Your task to perform on an android device: turn off sleep mode Image 0: 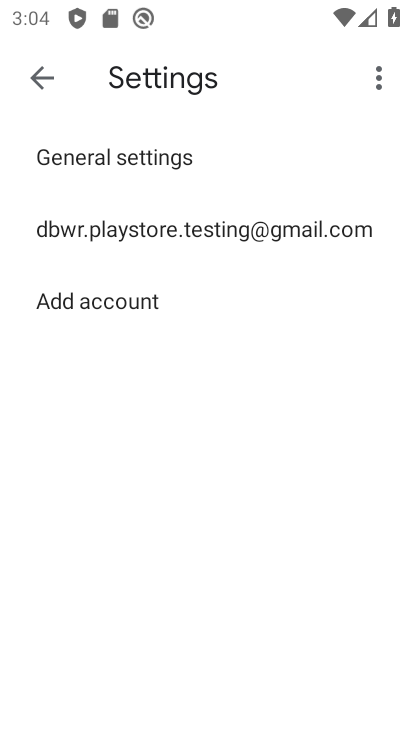
Step 0: drag from (112, 613) to (406, 398)
Your task to perform on an android device: turn off sleep mode Image 1: 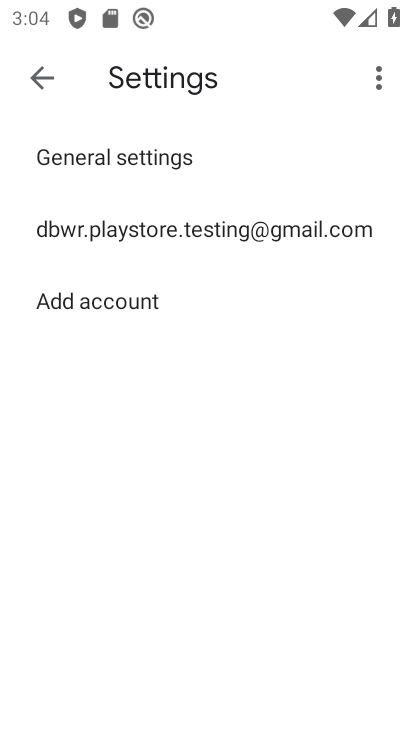
Step 1: press back button
Your task to perform on an android device: turn off sleep mode Image 2: 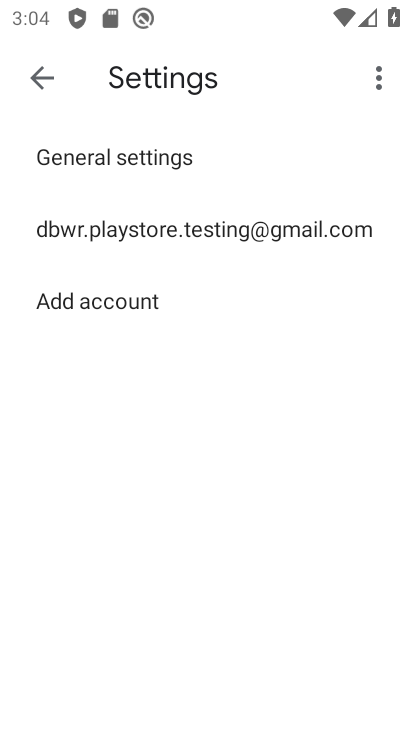
Step 2: click (406, 398)
Your task to perform on an android device: turn off sleep mode Image 3: 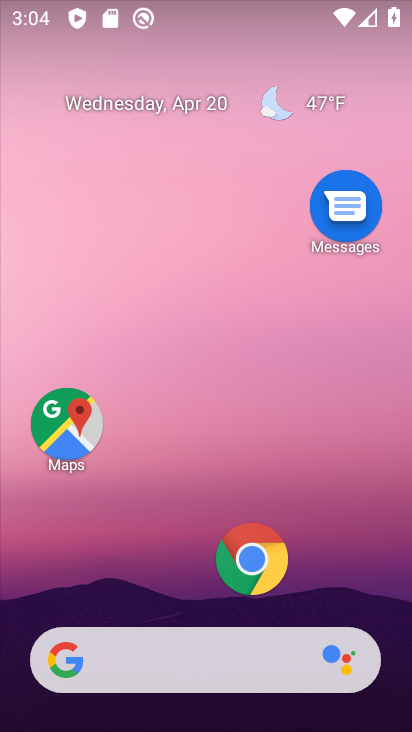
Step 3: drag from (143, 527) to (247, 105)
Your task to perform on an android device: turn off sleep mode Image 4: 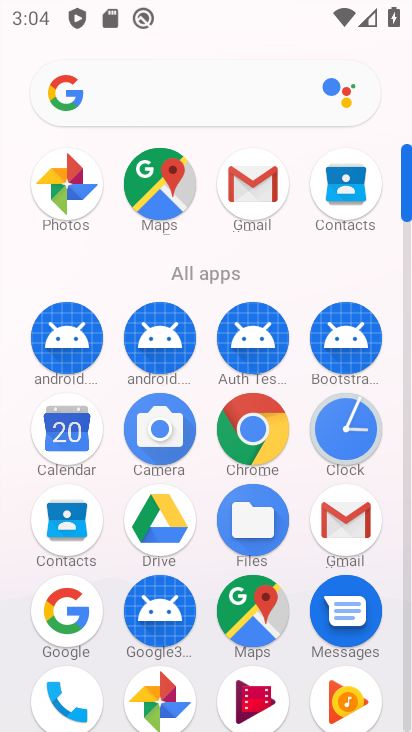
Step 4: drag from (178, 571) to (262, 337)
Your task to perform on an android device: turn off sleep mode Image 5: 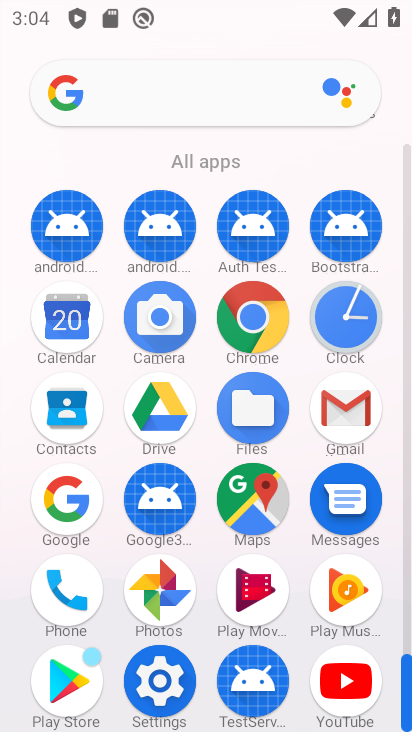
Step 5: click (145, 684)
Your task to perform on an android device: turn off sleep mode Image 6: 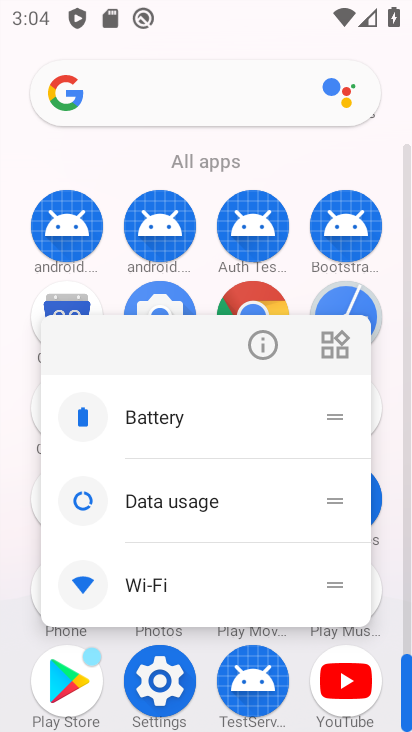
Step 6: click (160, 680)
Your task to perform on an android device: turn off sleep mode Image 7: 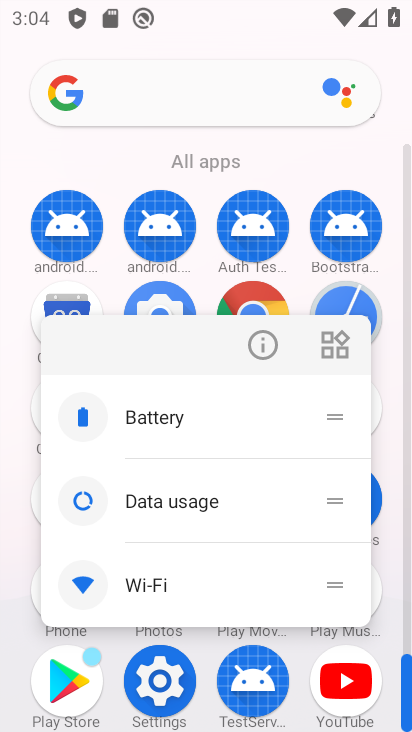
Step 7: click (146, 690)
Your task to perform on an android device: turn off sleep mode Image 8: 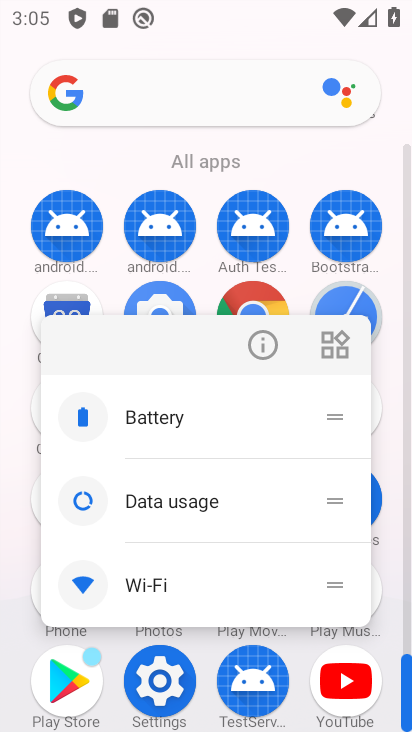
Step 8: click (162, 667)
Your task to perform on an android device: turn off sleep mode Image 9: 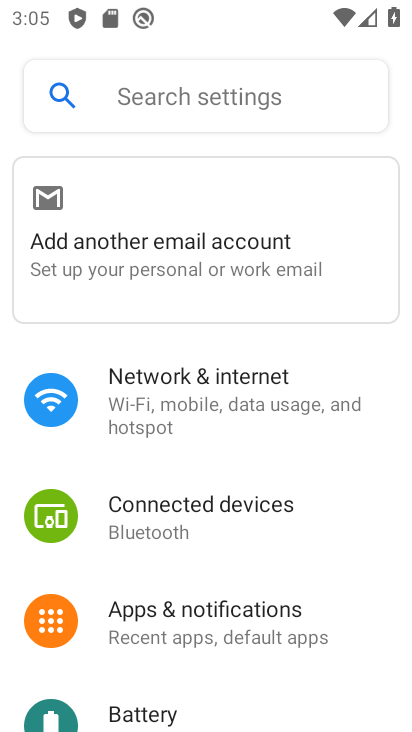
Step 9: drag from (250, 570) to (359, 229)
Your task to perform on an android device: turn off sleep mode Image 10: 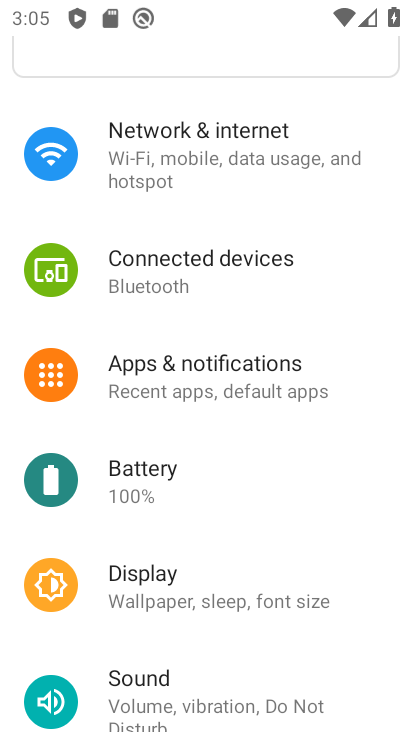
Step 10: click (183, 589)
Your task to perform on an android device: turn off sleep mode Image 11: 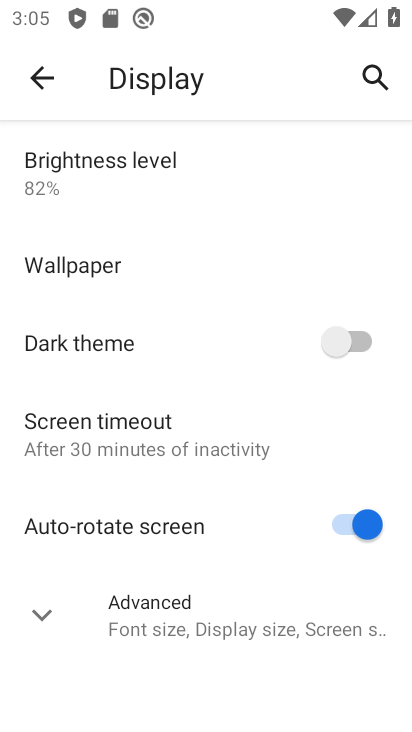
Step 11: click (180, 620)
Your task to perform on an android device: turn off sleep mode Image 12: 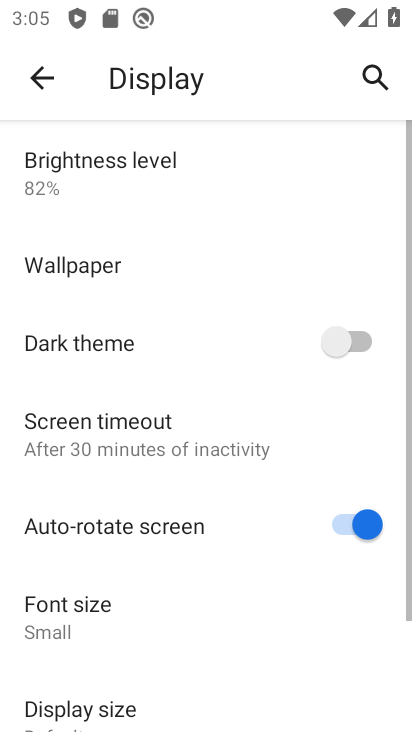
Step 12: task complete